Your task to perform on an android device: Open the phone app and click the voicemail tab. Image 0: 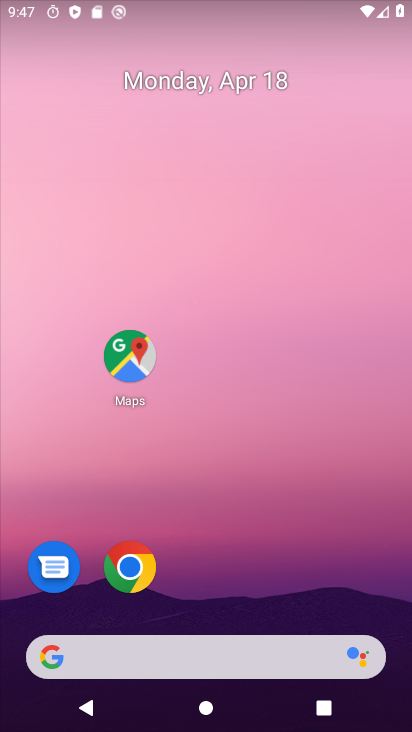
Step 0: drag from (290, 673) to (361, 230)
Your task to perform on an android device: Open the phone app and click the voicemail tab. Image 1: 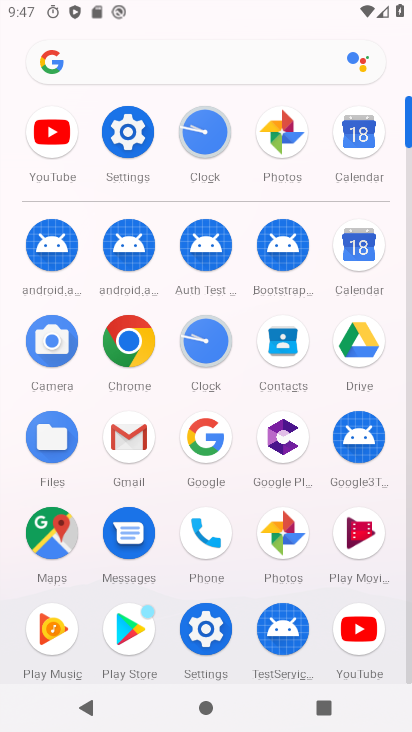
Step 1: click (201, 529)
Your task to perform on an android device: Open the phone app and click the voicemail tab. Image 2: 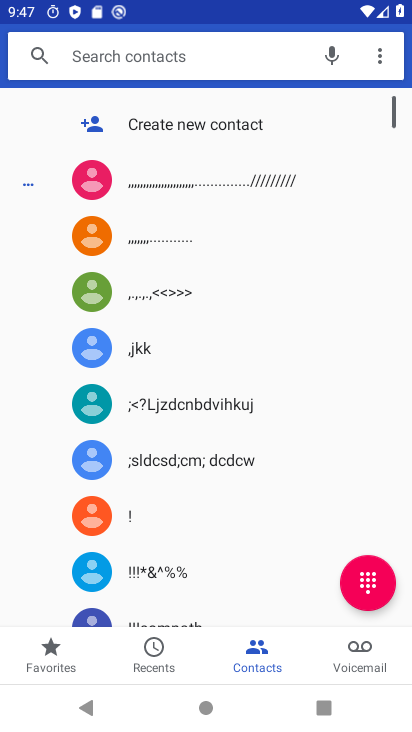
Step 2: click (335, 653)
Your task to perform on an android device: Open the phone app and click the voicemail tab. Image 3: 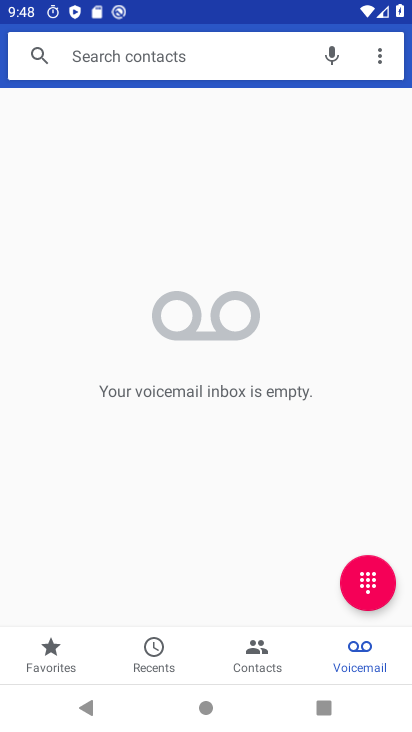
Step 3: task complete